Your task to perform on an android device: toggle notification dots Image 0: 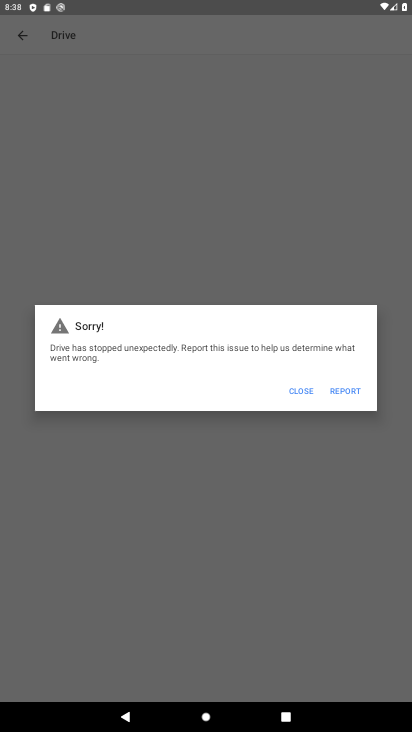
Step 0: press home button
Your task to perform on an android device: toggle notification dots Image 1: 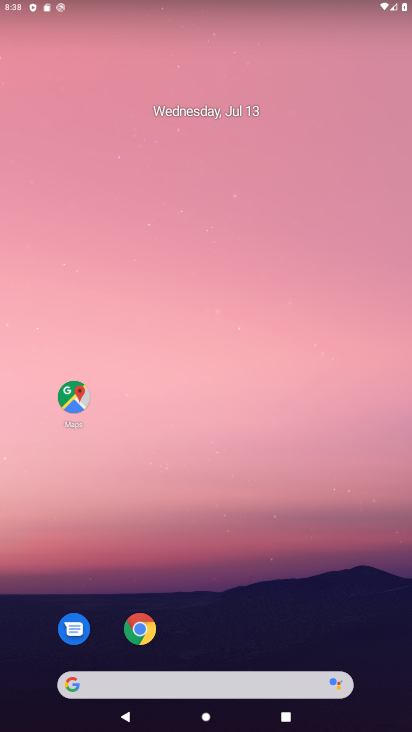
Step 1: drag from (233, 610) to (249, 45)
Your task to perform on an android device: toggle notification dots Image 2: 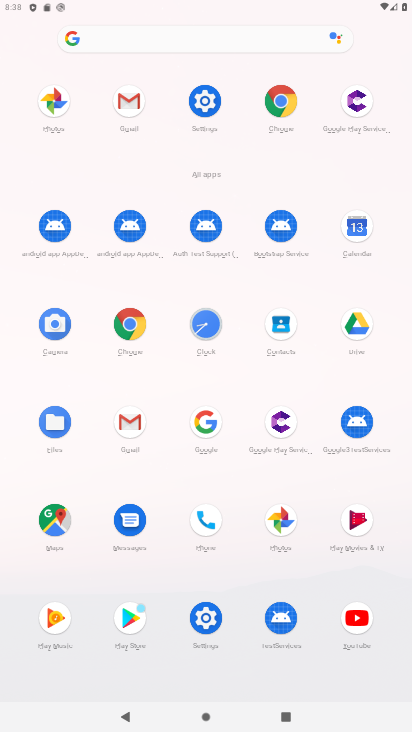
Step 2: click (203, 615)
Your task to perform on an android device: toggle notification dots Image 3: 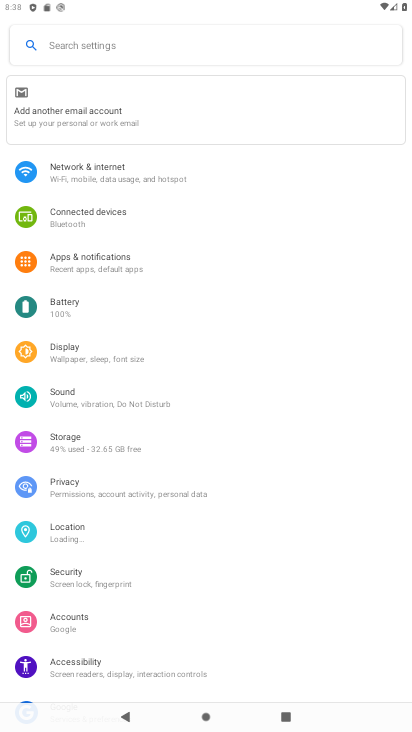
Step 3: drag from (265, 606) to (226, 492)
Your task to perform on an android device: toggle notification dots Image 4: 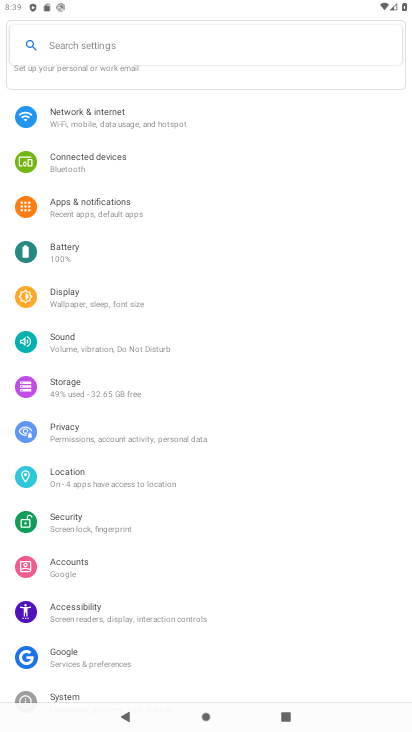
Step 4: click (88, 211)
Your task to perform on an android device: toggle notification dots Image 5: 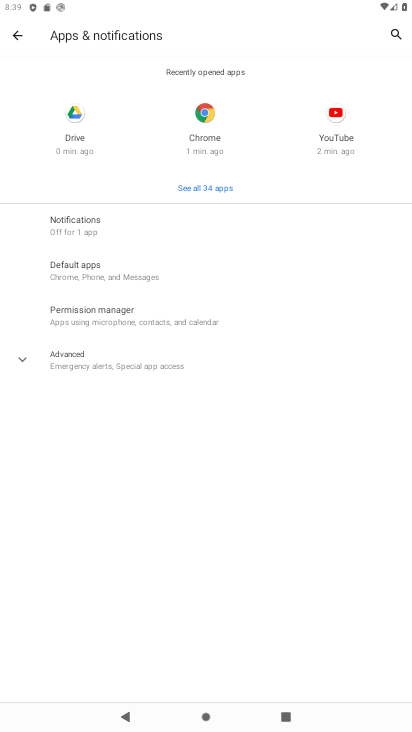
Step 5: click (74, 215)
Your task to perform on an android device: toggle notification dots Image 6: 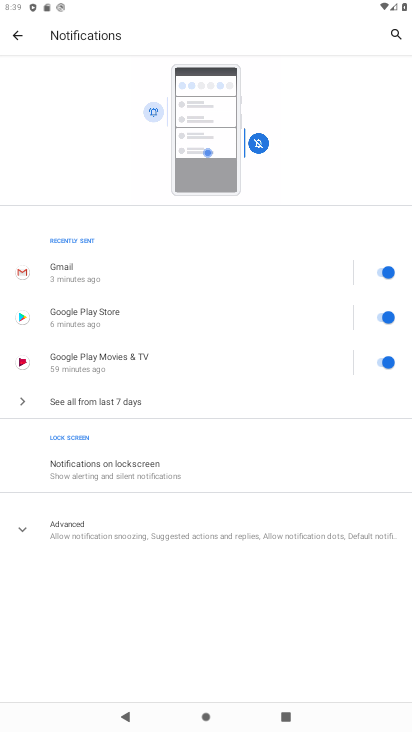
Step 6: click (60, 523)
Your task to perform on an android device: toggle notification dots Image 7: 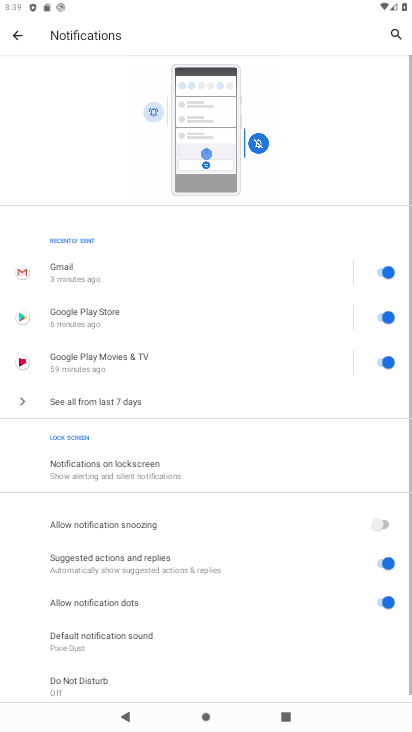
Step 7: drag from (189, 586) to (178, 293)
Your task to perform on an android device: toggle notification dots Image 8: 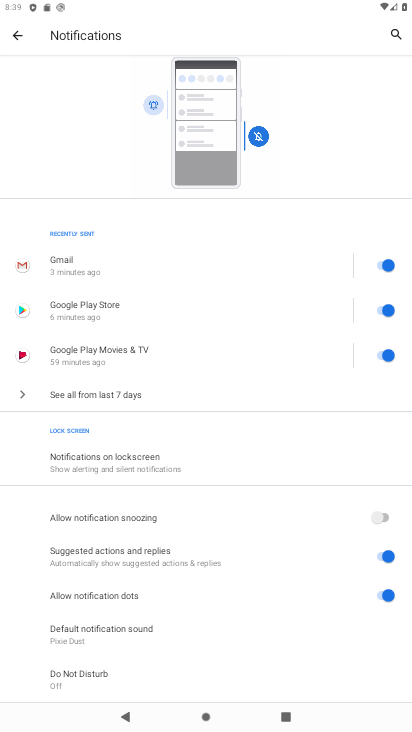
Step 8: click (383, 588)
Your task to perform on an android device: toggle notification dots Image 9: 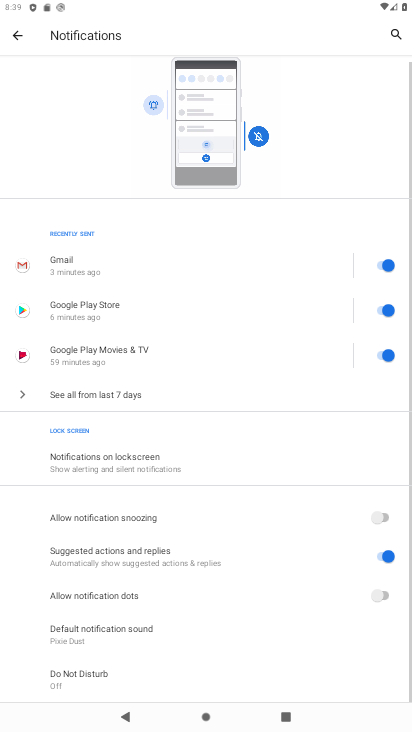
Step 9: task complete